Your task to perform on an android device: turn off javascript in the chrome app Image 0: 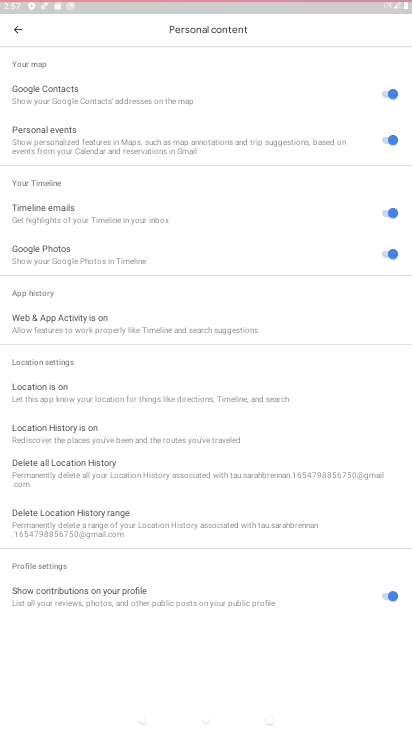
Step 0: press home button
Your task to perform on an android device: turn off javascript in the chrome app Image 1: 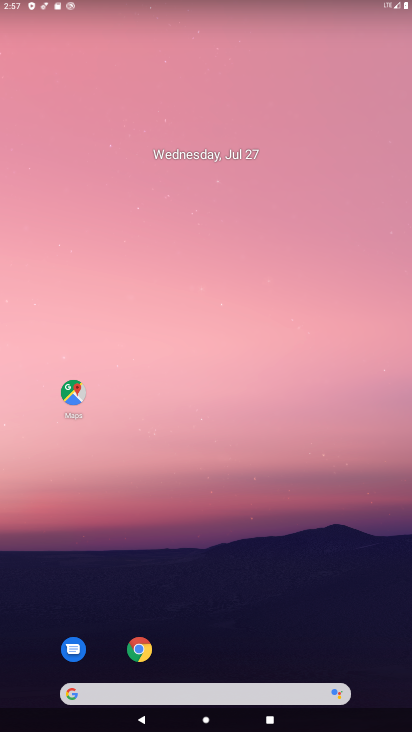
Step 1: drag from (260, 638) to (252, 50)
Your task to perform on an android device: turn off javascript in the chrome app Image 2: 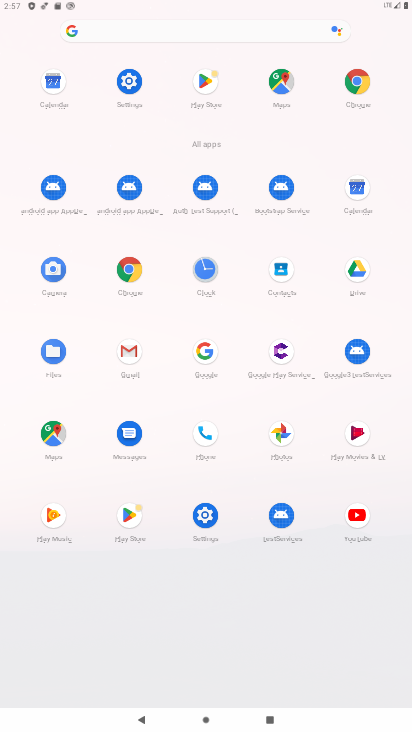
Step 2: click (132, 266)
Your task to perform on an android device: turn off javascript in the chrome app Image 3: 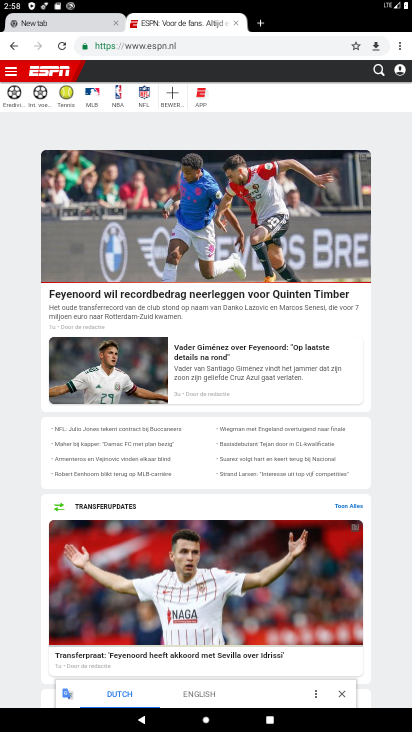
Step 3: drag from (398, 42) to (312, 304)
Your task to perform on an android device: turn off javascript in the chrome app Image 4: 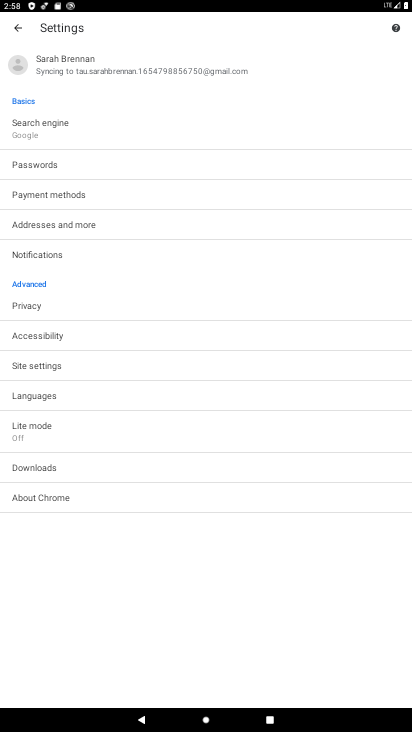
Step 4: click (58, 363)
Your task to perform on an android device: turn off javascript in the chrome app Image 5: 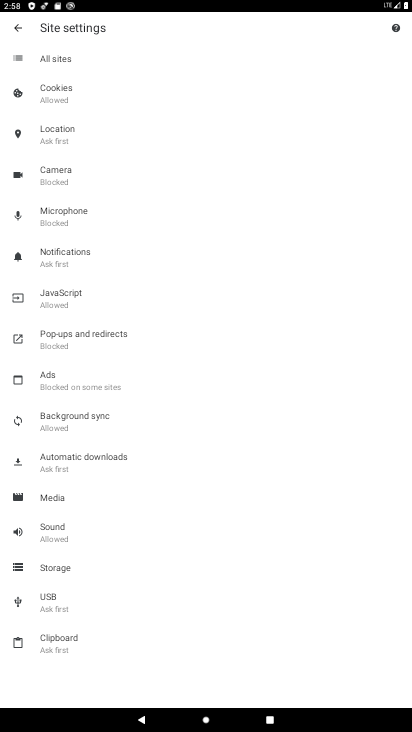
Step 5: click (42, 297)
Your task to perform on an android device: turn off javascript in the chrome app Image 6: 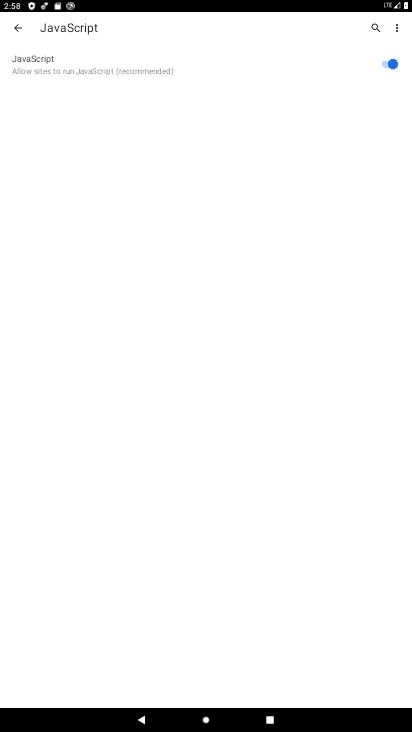
Step 6: click (302, 54)
Your task to perform on an android device: turn off javascript in the chrome app Image 7: 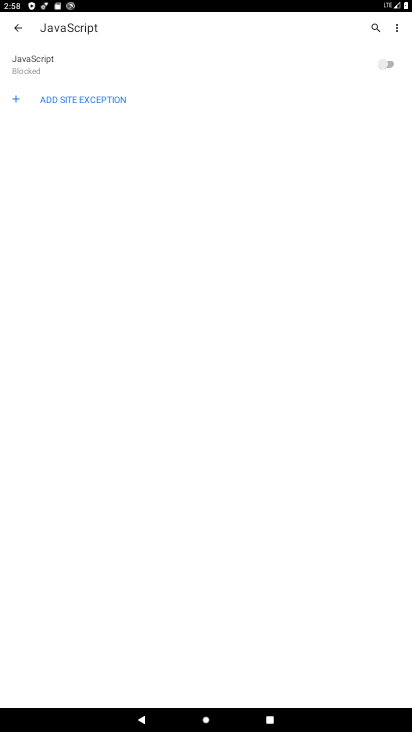
Step 7: task complete